Your task to perform on an android device: Open the calendar and show me this week's events? Image 0: 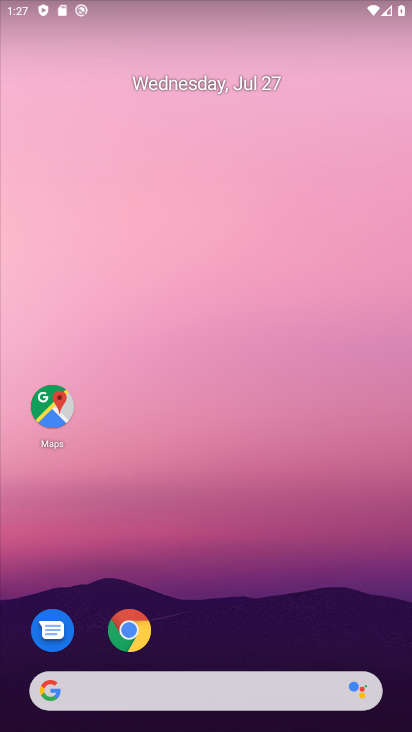
Step 0: drag from (364, 649) to (353, 291)
Your task to perform on an android device: Open the calendar and show me this week's events? Image 1: 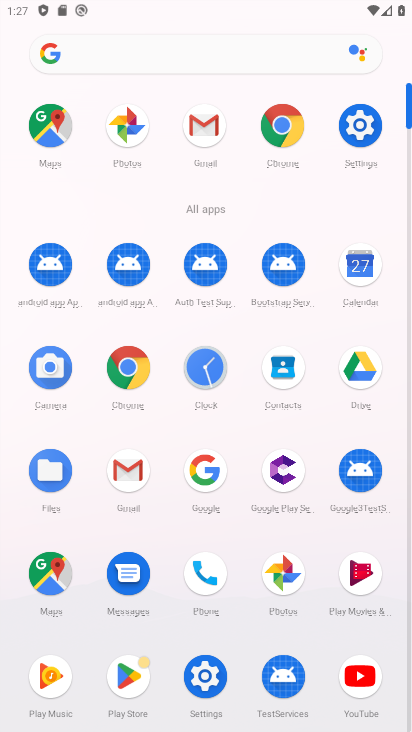
Step 1: click (362, 266)
Your task to perform on an android device: Open the calendar and show me this week's events? Image 2: 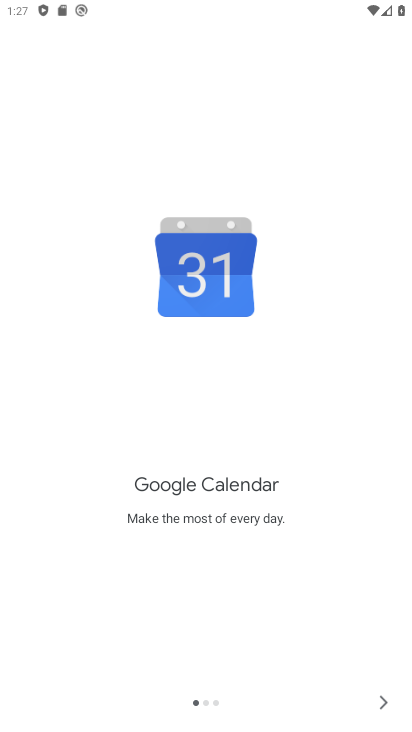
Step 2: click (380, 699)
Your task to perform on an android device: Open the calendar and show me this week's events? Image 3: 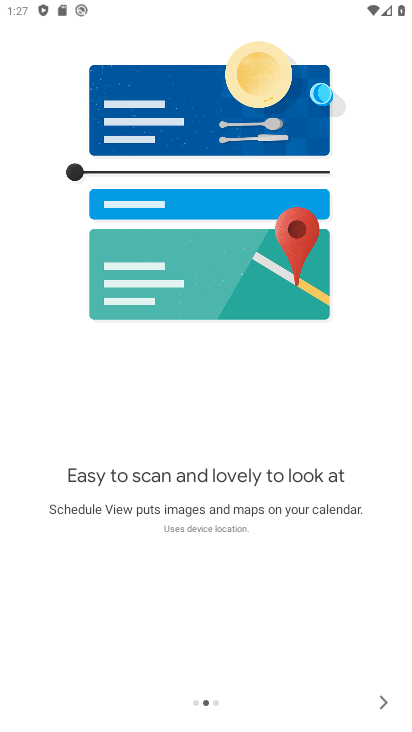
Step 3: click (380, 699)
Your task to perform on an android device: Open the calendar and show me this week's events? Image 4: 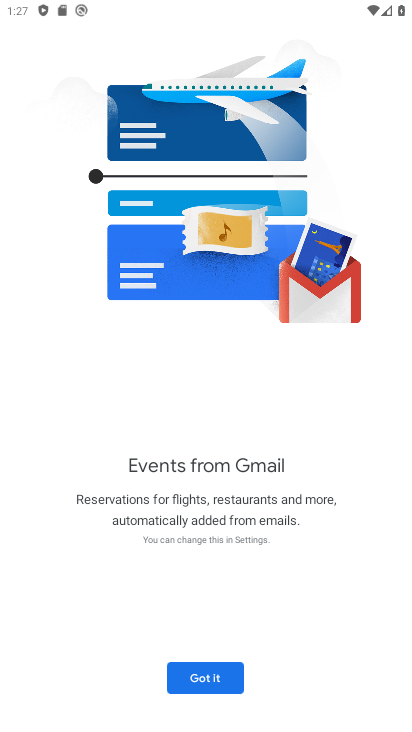
Step 4: click (204, 679)
Your task to perform on an android device: Open the calendar and show me this week's events? Image 5: 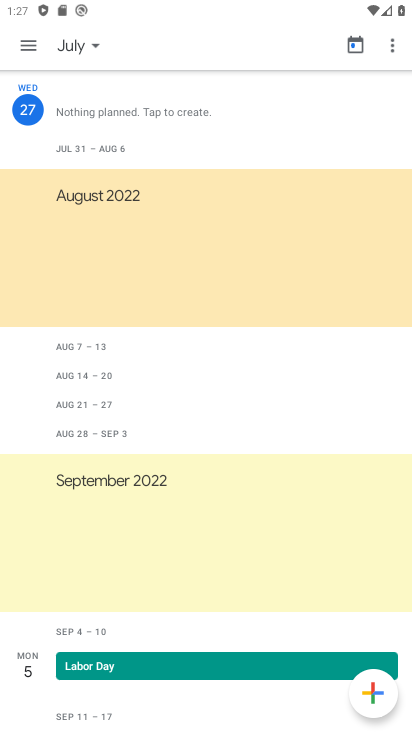
Step 5: click (26, 42)
Your task to perform on an android device: Open the calendar and show me this week's events? Image 6: 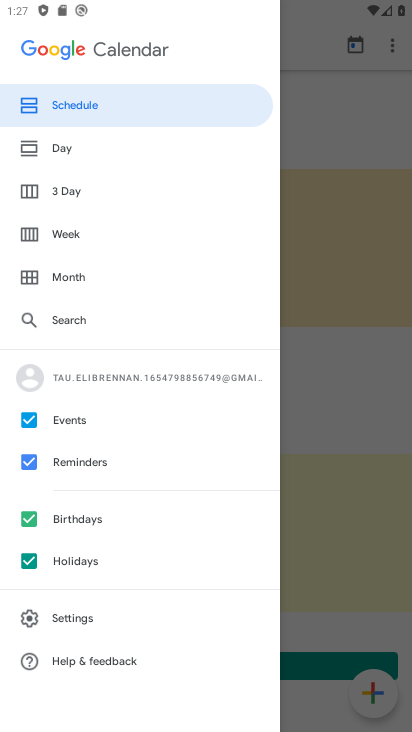
Step 6: click (69, 232)
Your task to perform on an android device: Open the calendar and show me this week's events? Image 7: 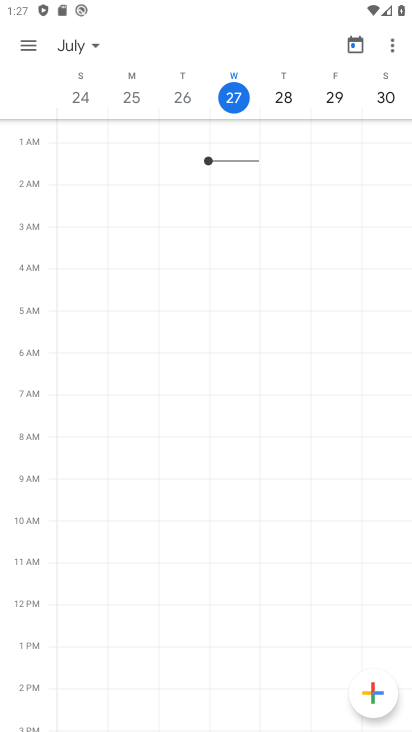
Step 7: click (93, 47)
Your task to perform on an android device: Open the calendar and show me this week's events? Image 8: 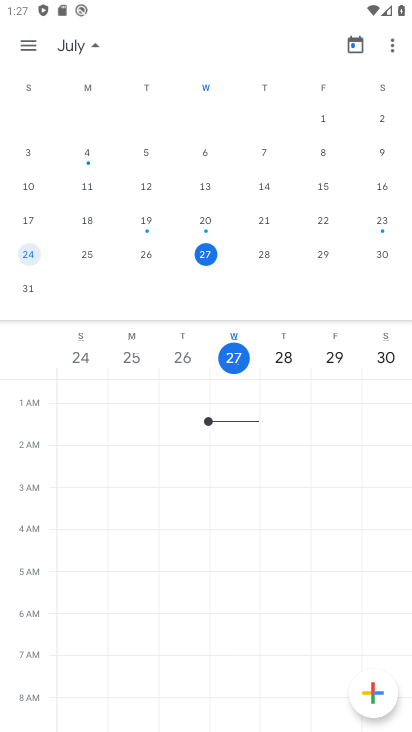
Step 8: click (208, 257)
Your task to perform on an android device: Open the calendar and show me this week's events? Image 9: 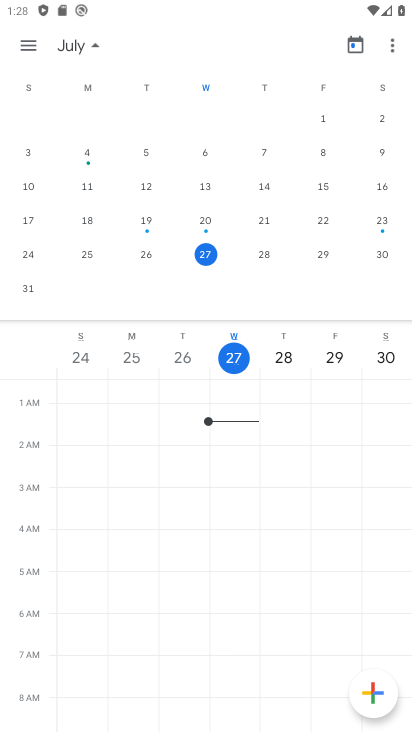
Step 9: task complete